Your task to perform on an android device: Add razer thresher to the cart on walmart, then select checkout. Image 0: 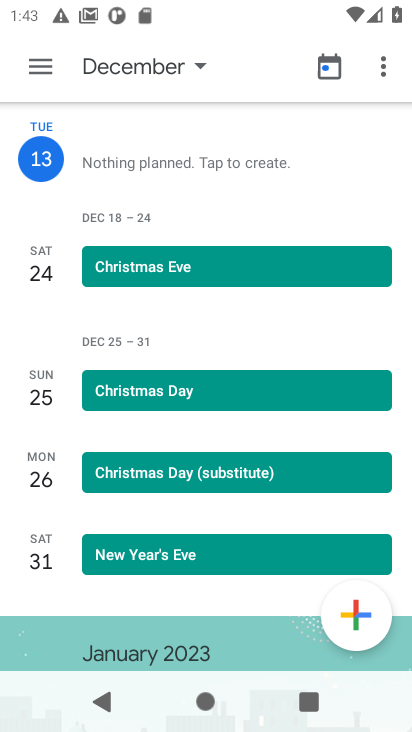
Step 0: press home button
Your task to perform on an android device: Add razer thresher to the cart on walmart, then select checkout. Image 1: 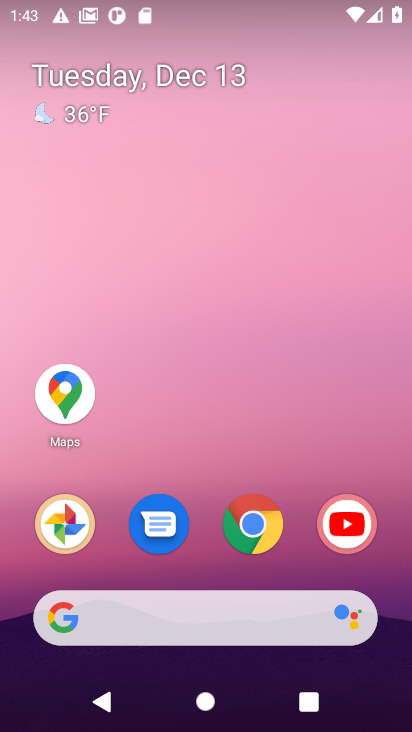
Step 1: click (255, 522)
Your task to perform on an android device: Add razer thresher to the cart on walmart, then select checkout. Image 2: 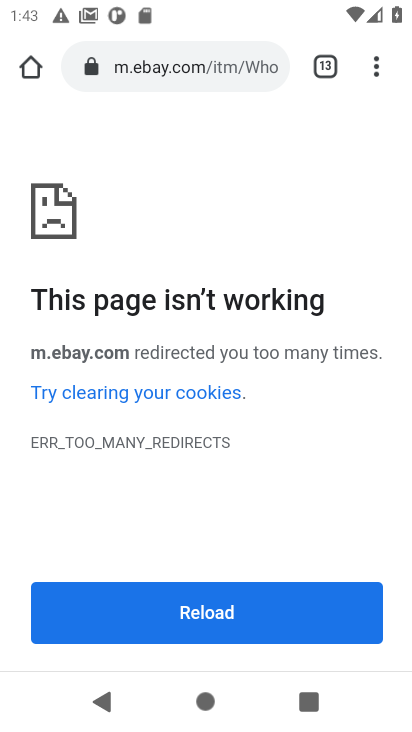
Step 2: click (184, 69)
Your task to perform on an android device: Add razer thresher to the cart on walmart, then select checkout. Image 3: 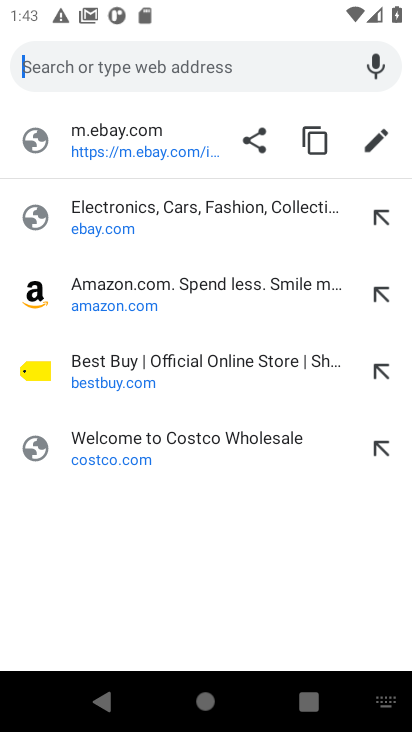
Step 3: type "walmart.com"
Your task to perform on an android device: Add razer thresher to the cart on walmart, then select checkout. Image 4: 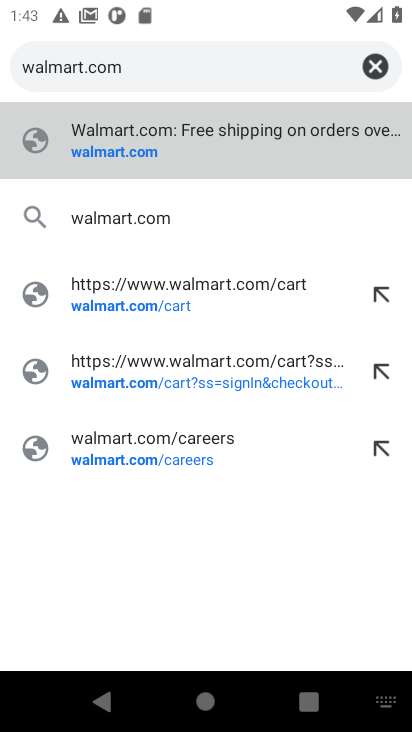
Step 4: click (89, 159)
Your task to perform on an android device: Add razer thresher to the cart on walmart, then select checkout. Image 5: 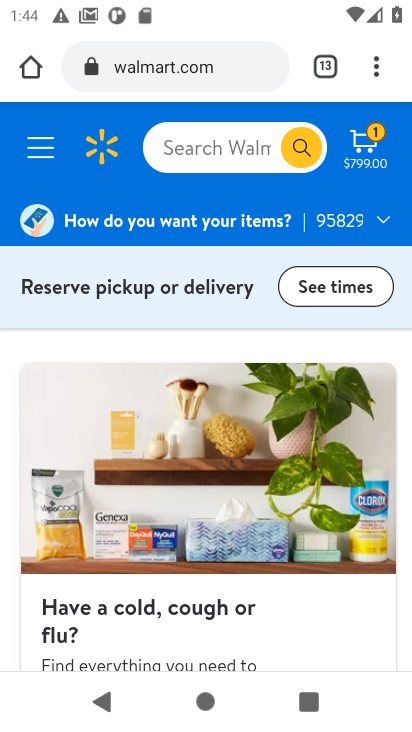
Step 5: click (183, 143)
Your task to perform on an android device: Add razer thresher to the cart on walmart, then select checkout. Image 6: 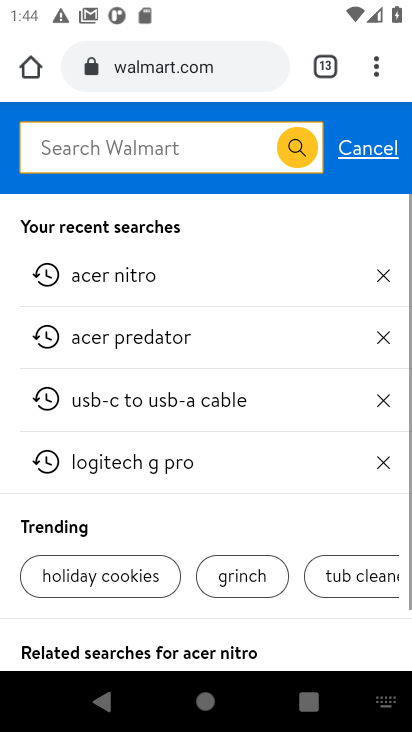
Step 6: type "razer thresher"
Your task to perform on an android device: Add razer thresher to the cart on walmart, then select checkout. Image 7: 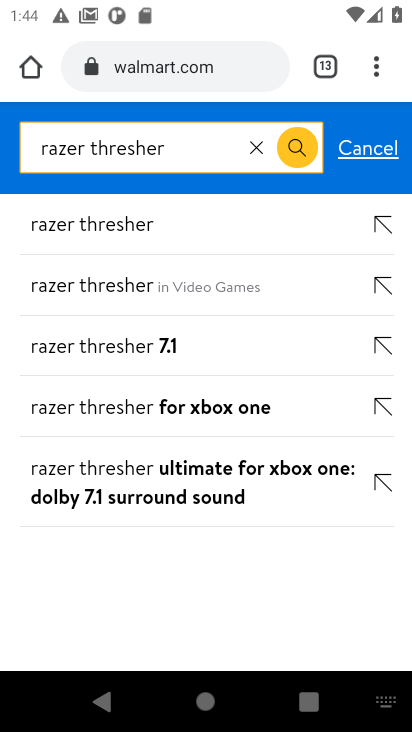
Step 7: click (96, 228)
Your task to perform on an android device: Add razer thresher to the cart on walmart, then select checkout. Image 8: 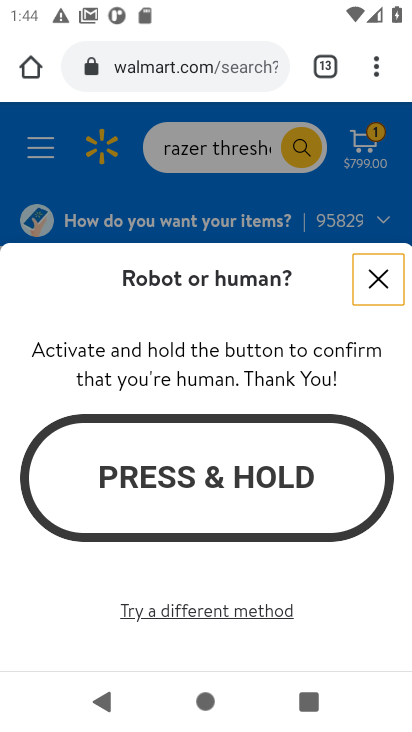
Step 8: click (374, 282)
Your task to perform on an android device: Add razer thresher to the cart on walmart, then select checkout. Image 9: 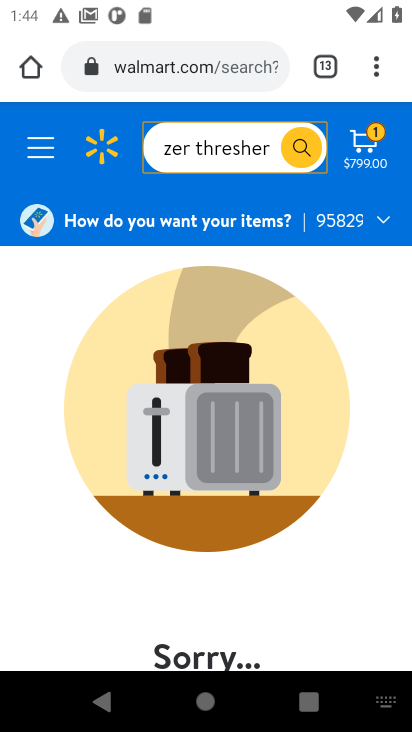
Step 9: click (305, 157)
Your task to perform on an android device: Add razer thresher to the cart on walmart, then select checkout. Image 10: 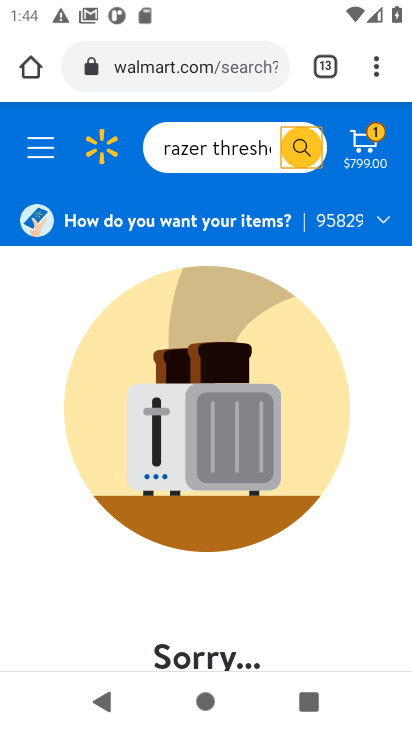
Step 10: click (303, 152)
Your task to perform on an android device: Add razer thresher to the cart on walmart, then select checkout. Image 11: 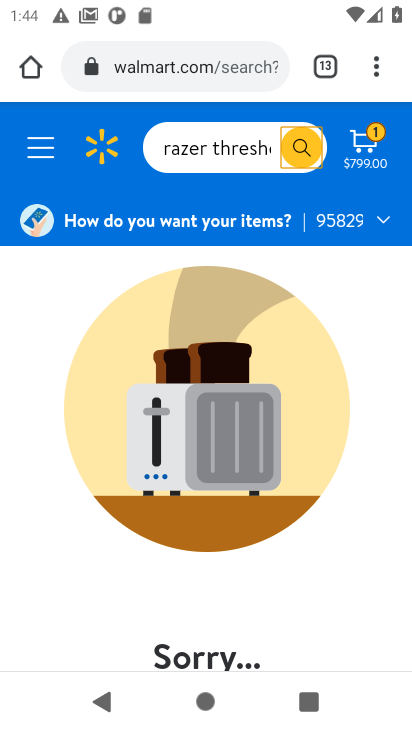
Step 11: task complete